Your task to perform on an android device: Go to location settings Image 0: 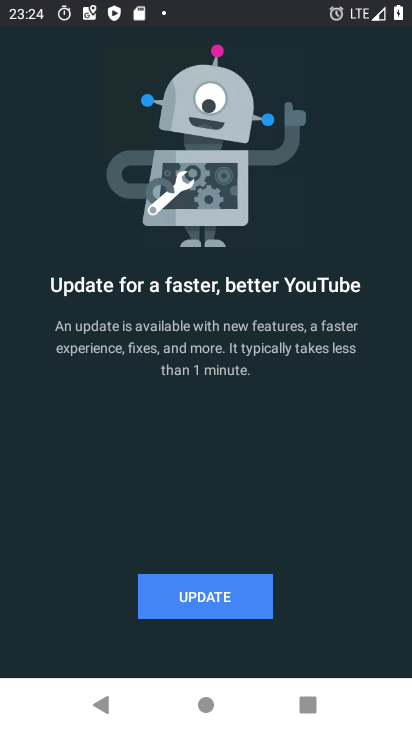
Step 0: press back button
Your task to perform on an android device: Go to location settings Image 1: 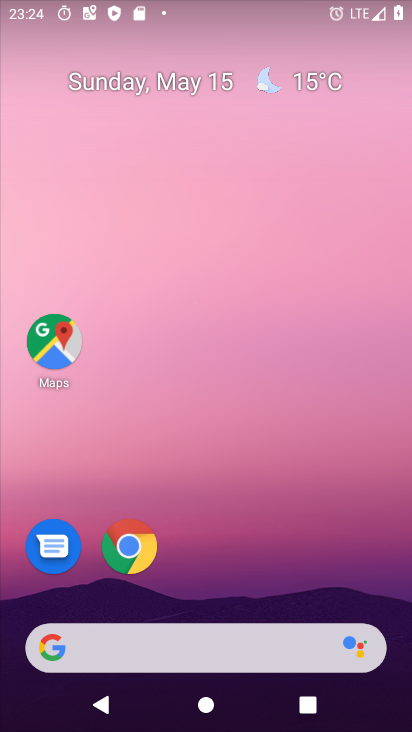
Step 1: drag from (374, 656) to (238, 6)
Your task to perform on an android device: Go to location settings Image 2: 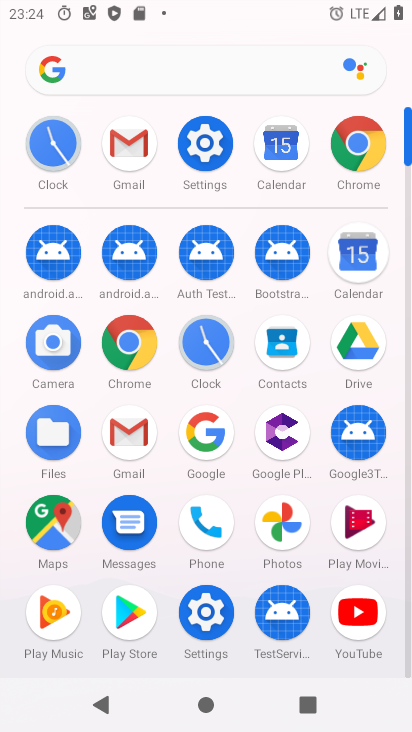
Step 2: click (207, 150)
Your task to perform on an android device: Go to location settings Image 3: 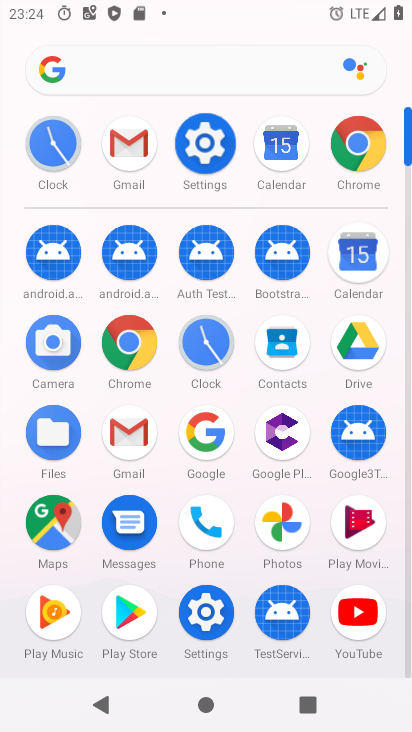
Step 3: click (207, 148)
Your task to perform on an android device: Go to location settings Image 4: 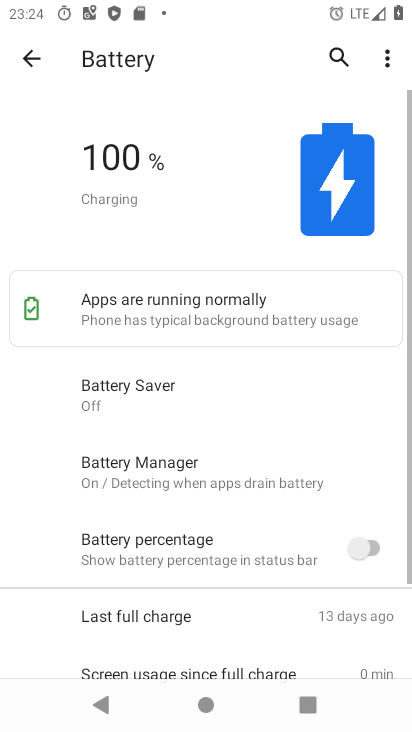
Step 4: click (25, 60)
Your task to perform on an android device: Go to location settings Image 5: 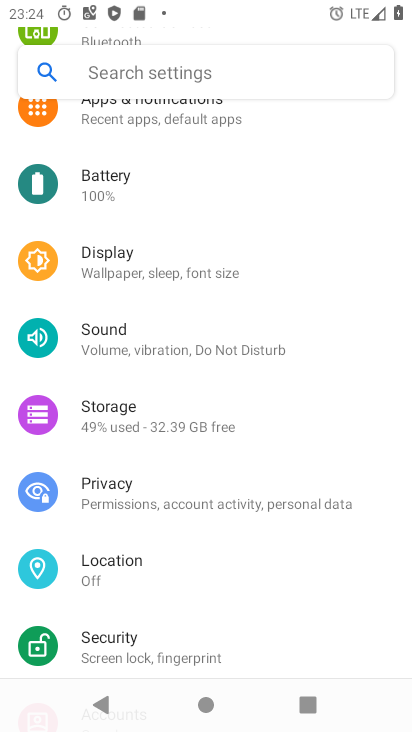
Step 5: click (103, 557)
Your task to perform on an android device: Go to location settings Image 6: 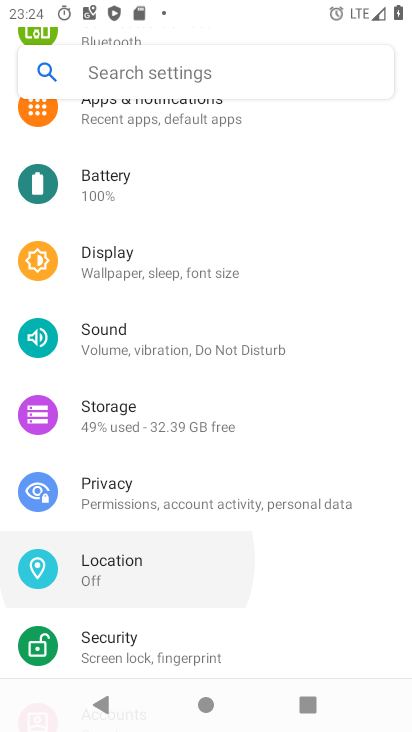
Step 6: click (103, 557)
Your task to perform on an android device: Go to location settings Image 7: 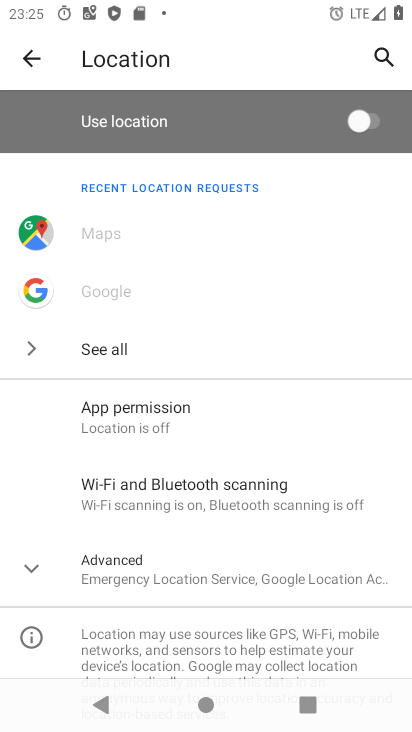
Step 7: task complete